Your task to perform on an android device: Go to network settings Image 0: 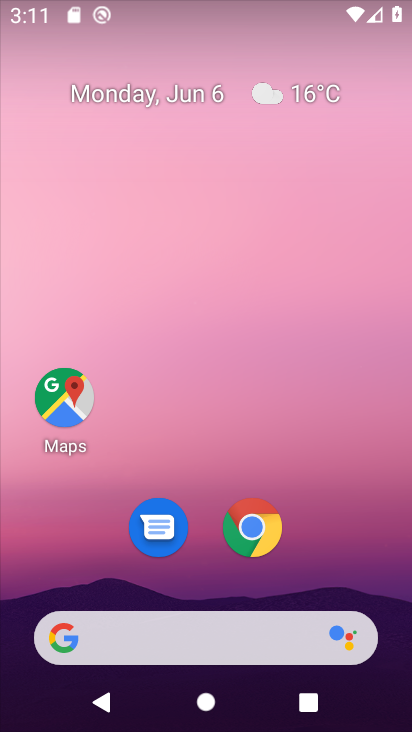
Step 0: drag from (353, 564) to (285, 26)
Your task to perform on an android device: Go to network settings Image 1: 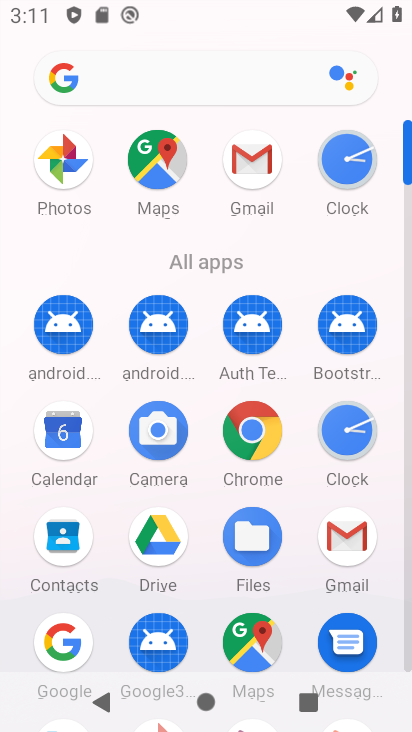
Step 1: drag from (294, 283) to (335, 123)
Your task to perform on an android device: Go to network settings Image 2: 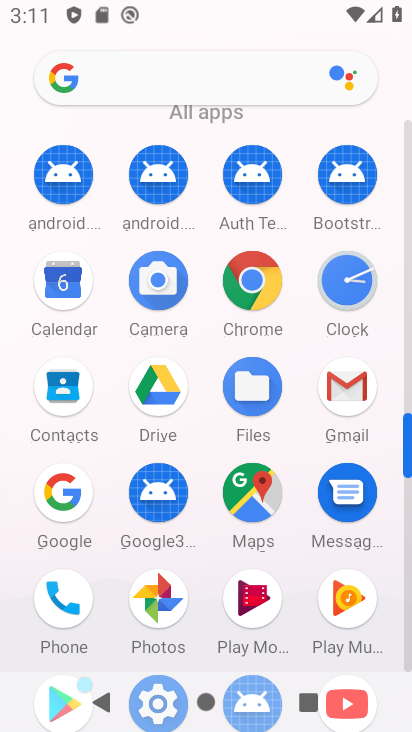
Step 2: drag from (204, 435) to (255, 240)
Your task to perform on an android device: Go to network settings Image 3: 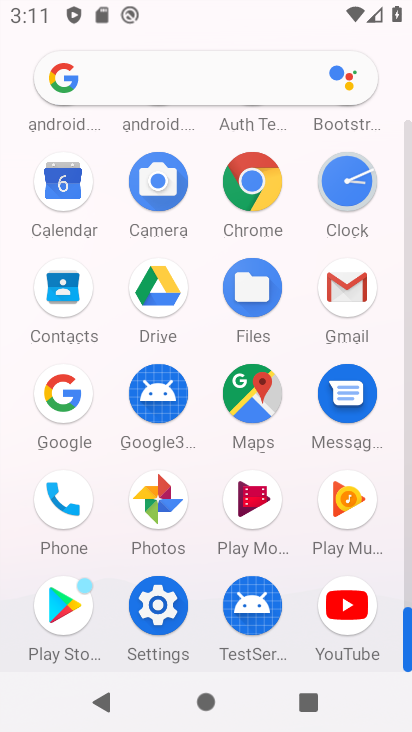
Step 3: click (159, 604)
Your task to perform on an android device: Go to network settings Image 4: 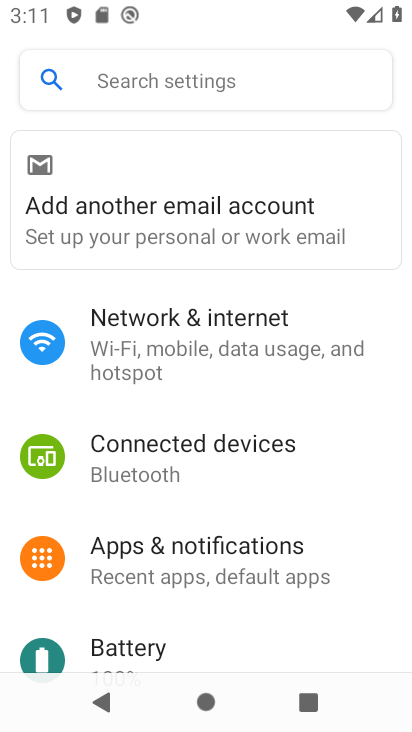
Step 4: click (207, 329)
Your task to perform on an android device: Go to network settings Image 5: 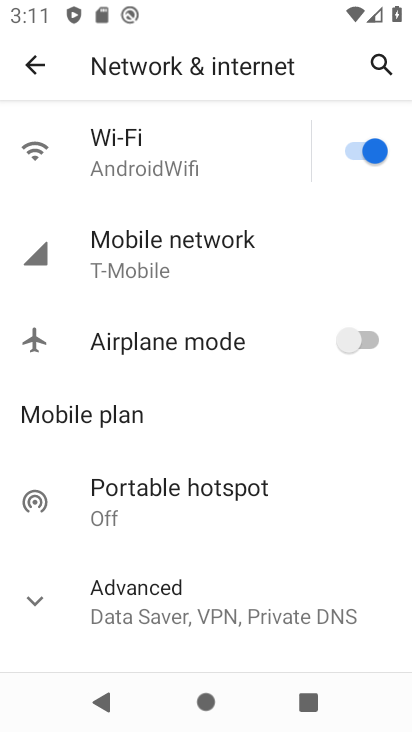
Step 5: click (238, 261)
Your task to perform on an android device: Go to network settings Image 6: 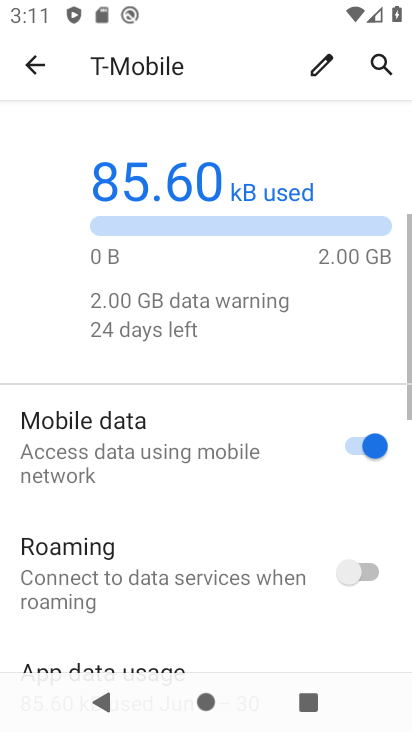
Step 6: task complete